Your task to perform on an android device: toggle priority inbox in the gmail app Image 0: 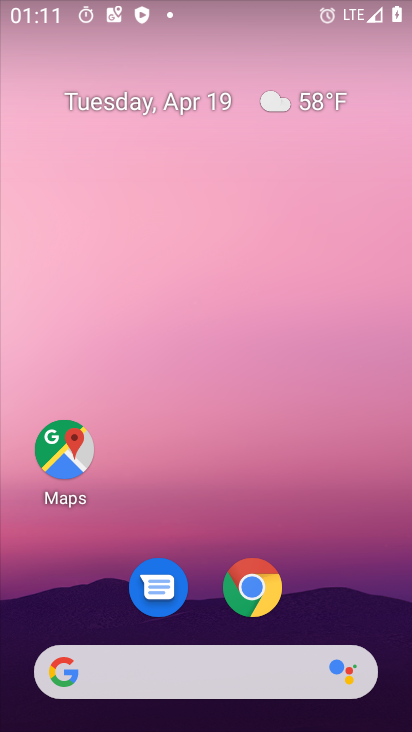
Step 0: drag from (371, 598) to (348, 190)
Your task to perform on an android device: toggle priority inbox in the gmail app Image 1: 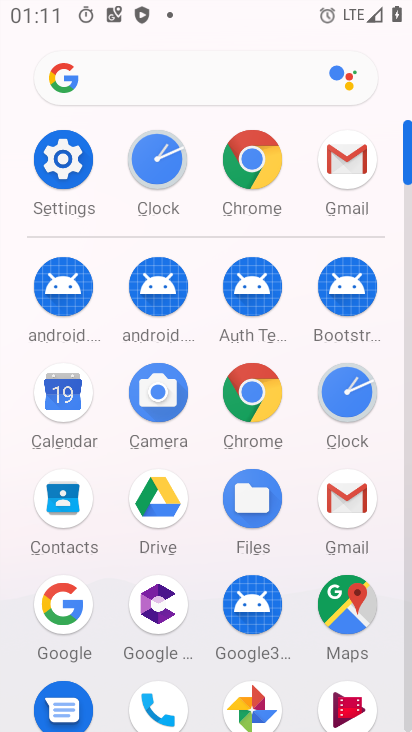
Step 1: click (343, 174)
Your task to perform on an android device: toggle priority inbox in the gmail app Image 2: 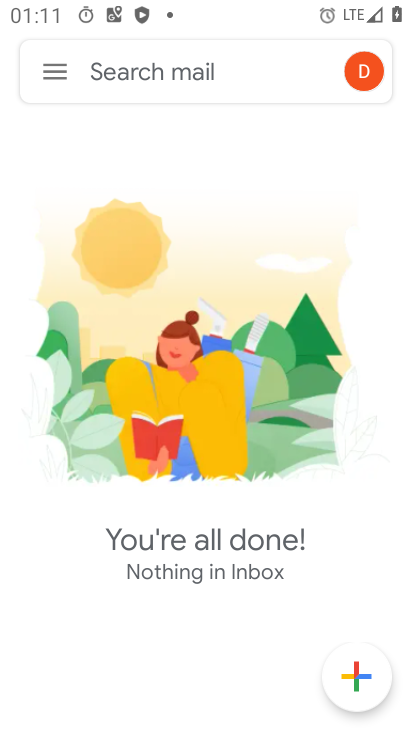
Step 2: click (64, 71)
Your task to perform on an android device: toggle priority inbox in the gmail app Image 3: 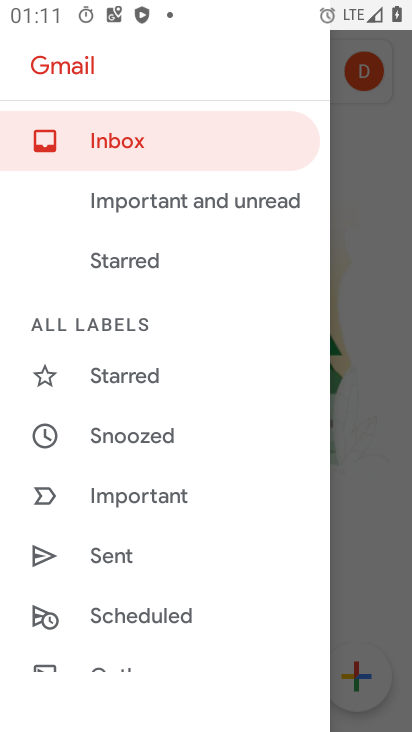
Step 3: drag from (216, 559) to (228, 359)
Your task to perform on an android device: toggle priority inbox in the gmail app Image 4: 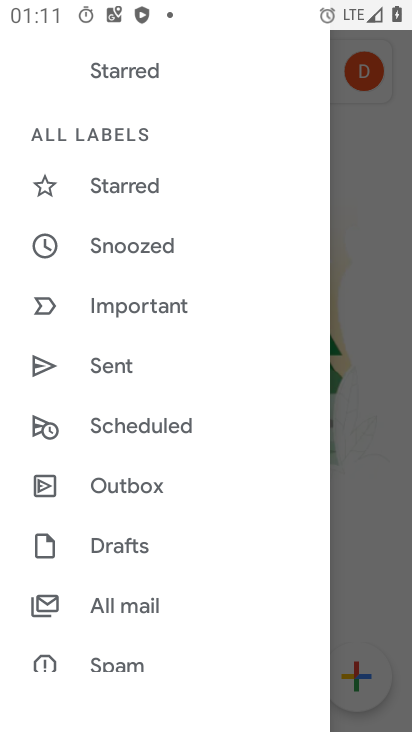
Step 4: drag from (216, 588) to (211, 261)
Your task to perform on an android device: toggle priority inbox in the gmail app Image 5: 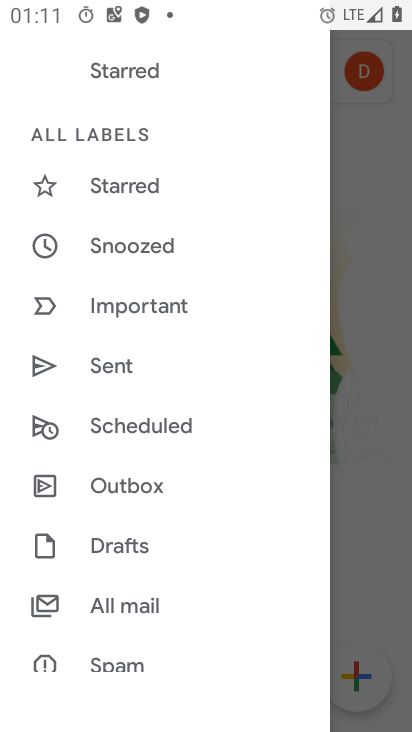
Step 5: drag from (212, 606) to (224, 214)
Your task to perform on an android device: toggle priority inbox in the gmail app Image 6: 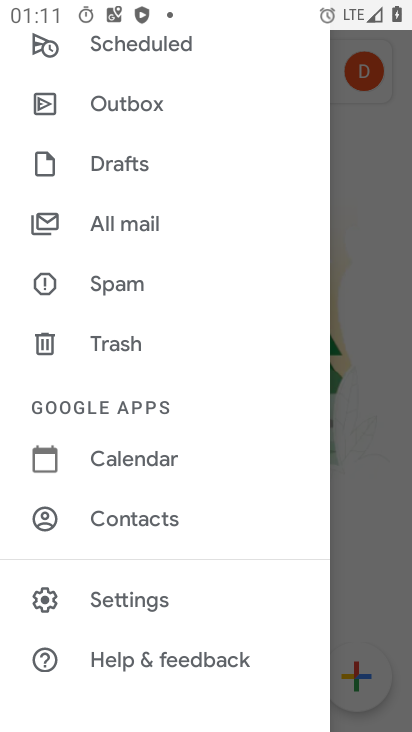
Step 6: click (136, 604)
Your task to perform on an android device: toggle priority inbox in the gmail app Image 7: 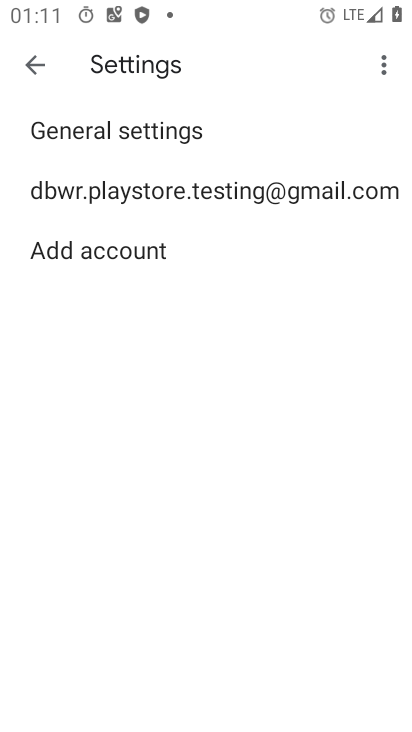
Step 7: click (274, 196)
Your task to perform on an android device: toggle priority inbox in the gmail app Image 8: 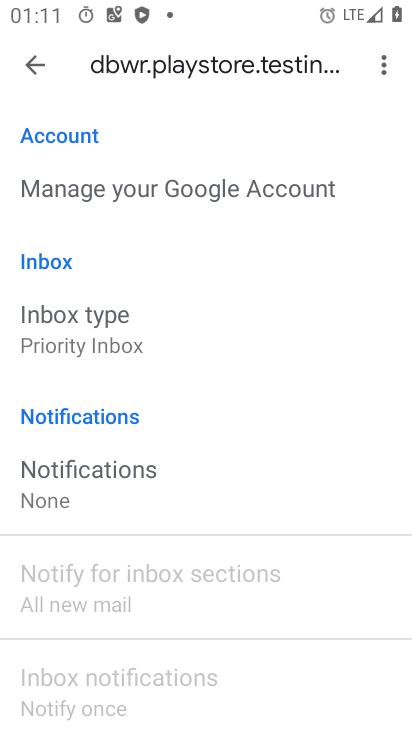
Step 8: click (89, 334)
Your task to perform on an android device: toggle priority inbox in the gmail app Image 9: 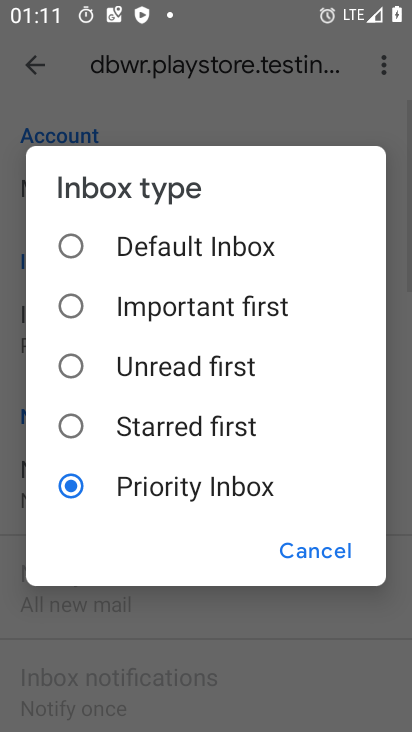
Step 9: click (130, 244)
Your task to perform on an android device: toggle priority inbox in the gmail app Image 10: 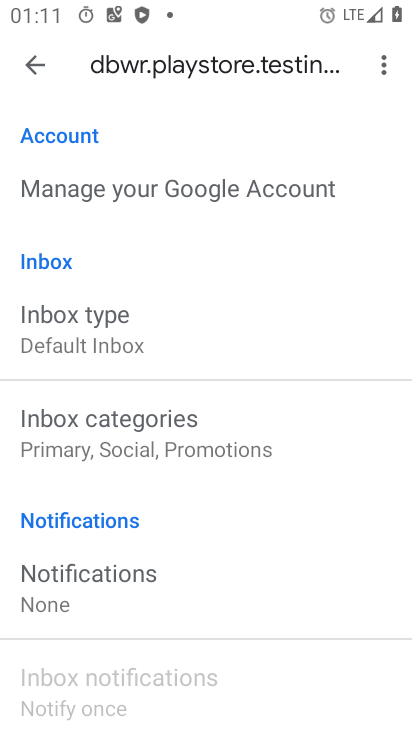
Step 10: task complete